Your task to perform on an android device: Search for seafood restaurants on Google Maps Image 0: 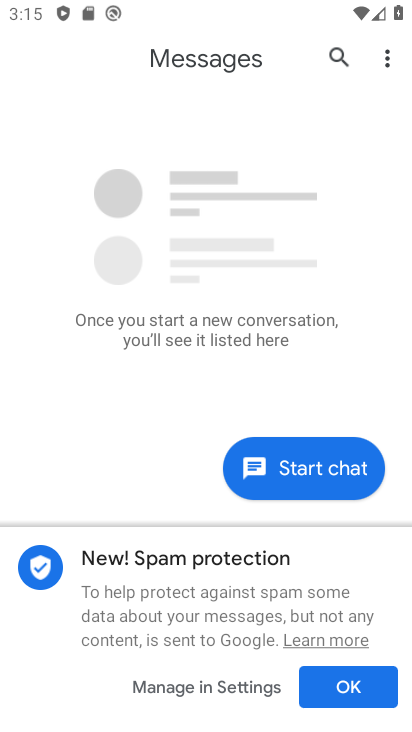
Step 0: press home button
Your task to perform on an android device: Search for seafood restaurants on Google Maps Image 1: 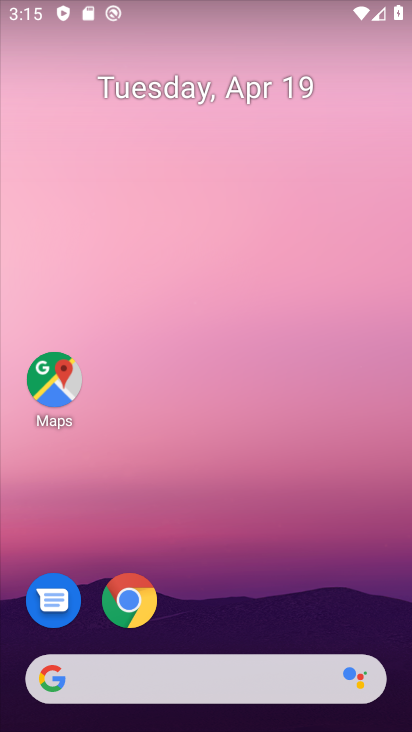
Step 1: drag from (232, 519) to (399, 17)
Your task to perform on an android device: Search for seafood restaurants on Google Maps Image 2: 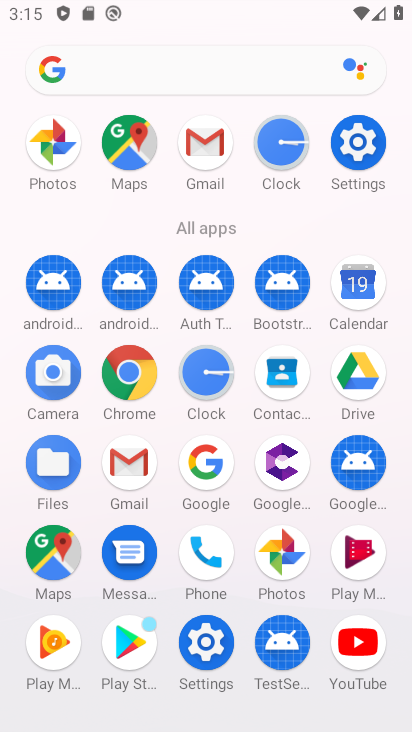
Step 2: click (354, 469)
Your task to perform on an android device: Search for seafood restaurants on Google Maps Image 3: 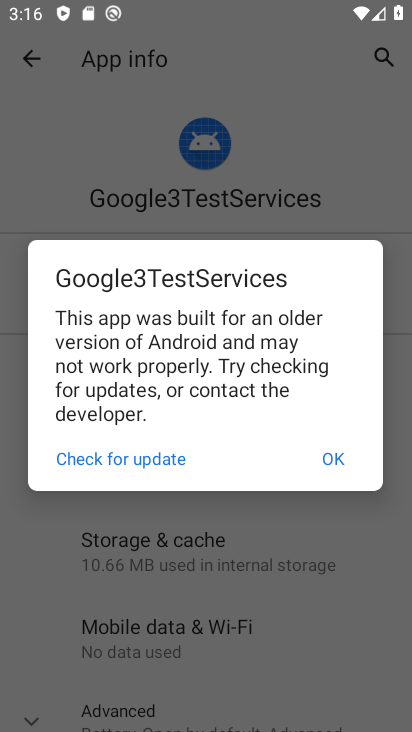
Step 3: press home button
Your task to perform on an android device: Search for seafood restaurants on Google Maps Image 4: 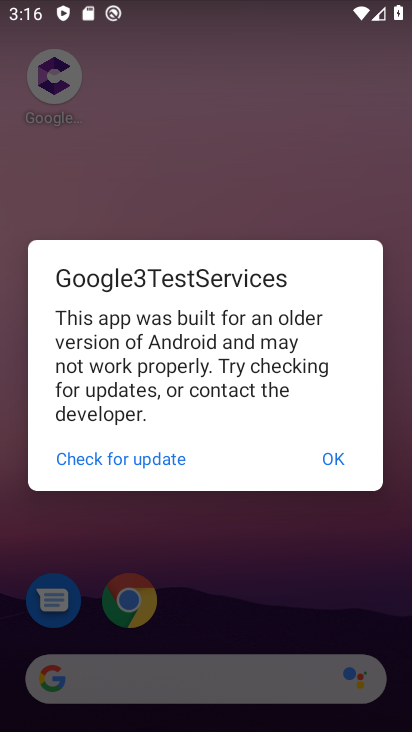
Step 4: click (216, 566)
Your task to perform on an android device: Search for seafood restaurants on Google Maps Image 5: 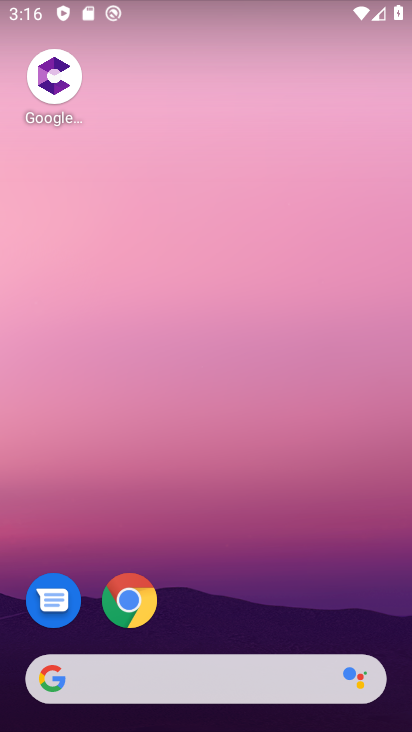
Step 5: drag from (221, 545) to (288, 9)
Your task to perform on an android device: Search for seafood restaurants on Google Maps Image 6: 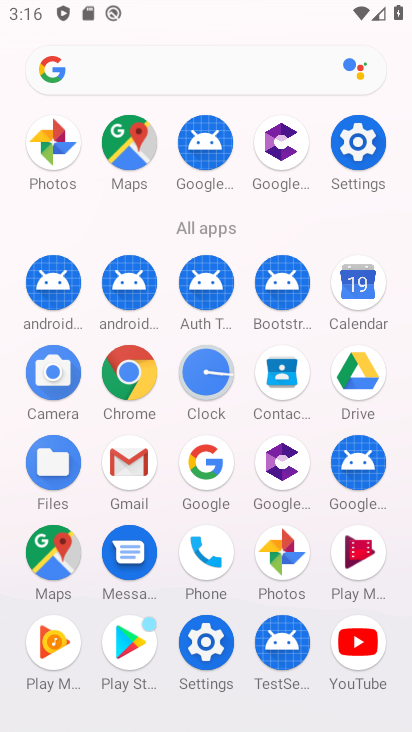
Step 6: click (61, 545)
Your task to perform on an android device: Search for seafood restaurants on Google Maps Image 7: 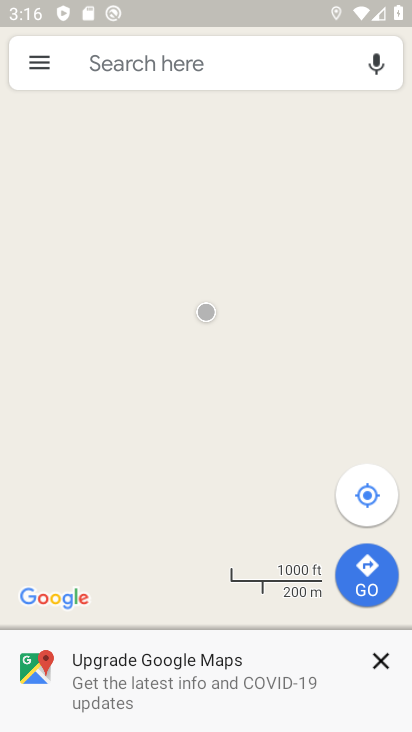
Step 7: click (164, 59)
Your task to perform on an android device: Search for seafood restaurants on Google Maps Image 8: 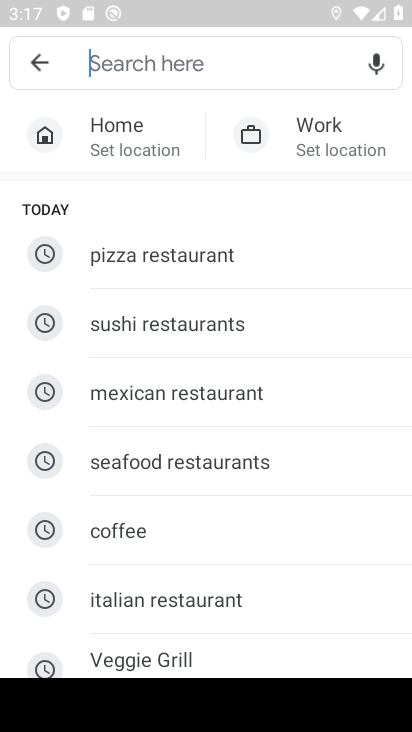
Step 8: type "seafood restaurants"
Your task to perform on an android device: Search for seafood restaurants on Google Maps Image 9: 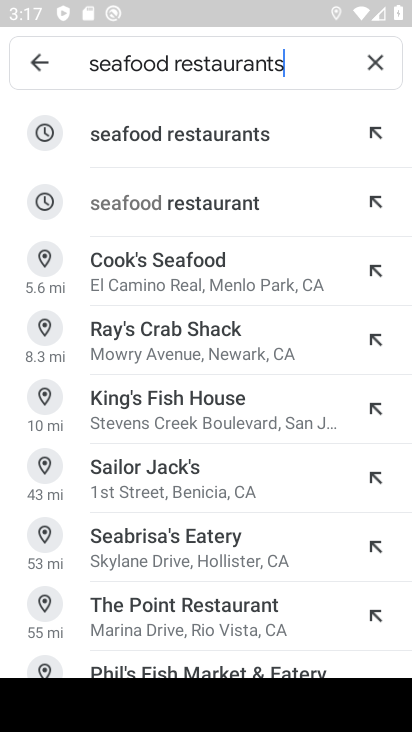
Step 9: click (220, 138)
Your task to perform on an android device: Search for seafood restaurants on Google Maps Image 10: 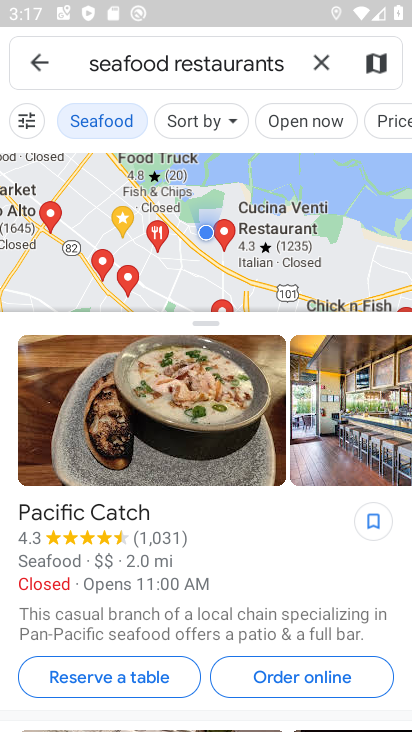
Step 10: task complete